Your task to perform on an android device: How big is the universe? Image 0: 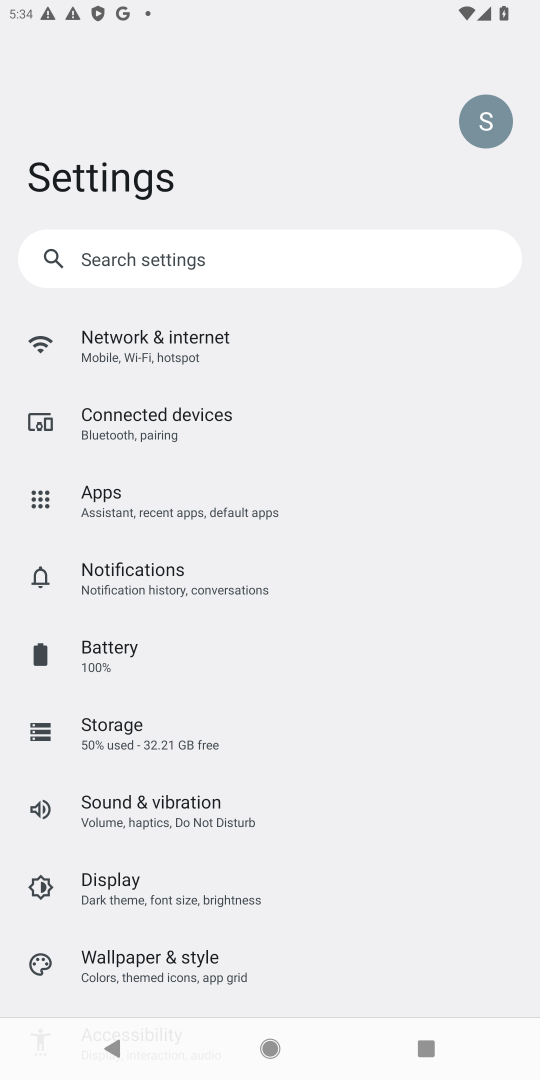
Step 0: press home button
Your task to perform on an android device: How big is the universe? Image 1: 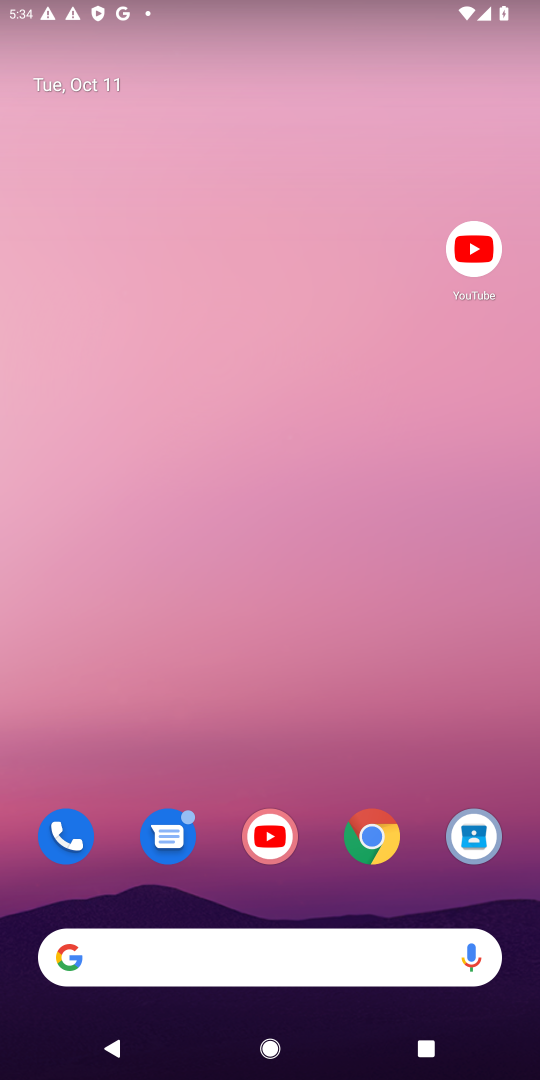
Step 1: click (380, 834)
Your task to perform on an android device: How big is the universe? Image 2: 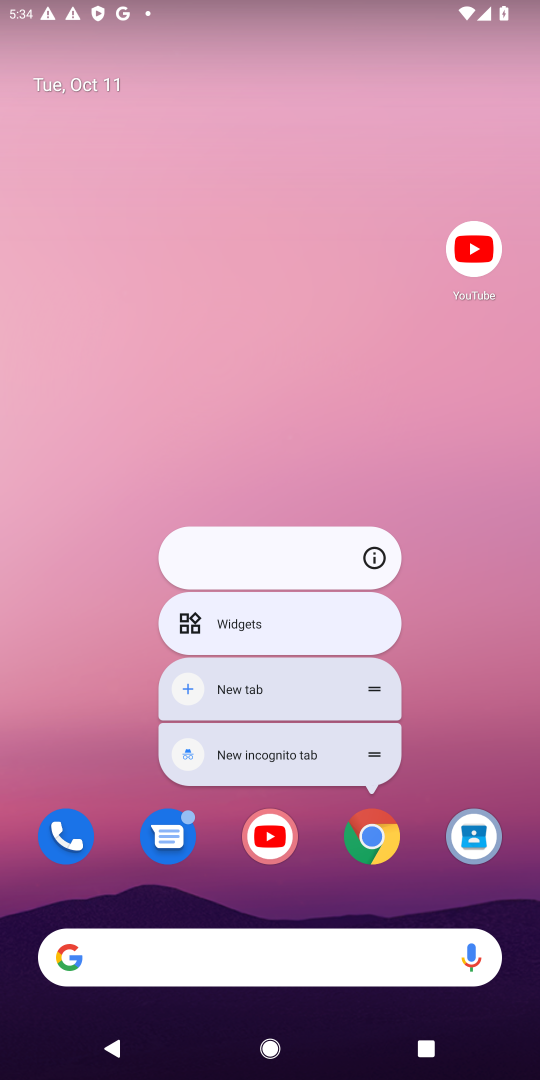
Step 2: click (367, 845)
Your task to perform on an android device: How big is the universe? Image 3: 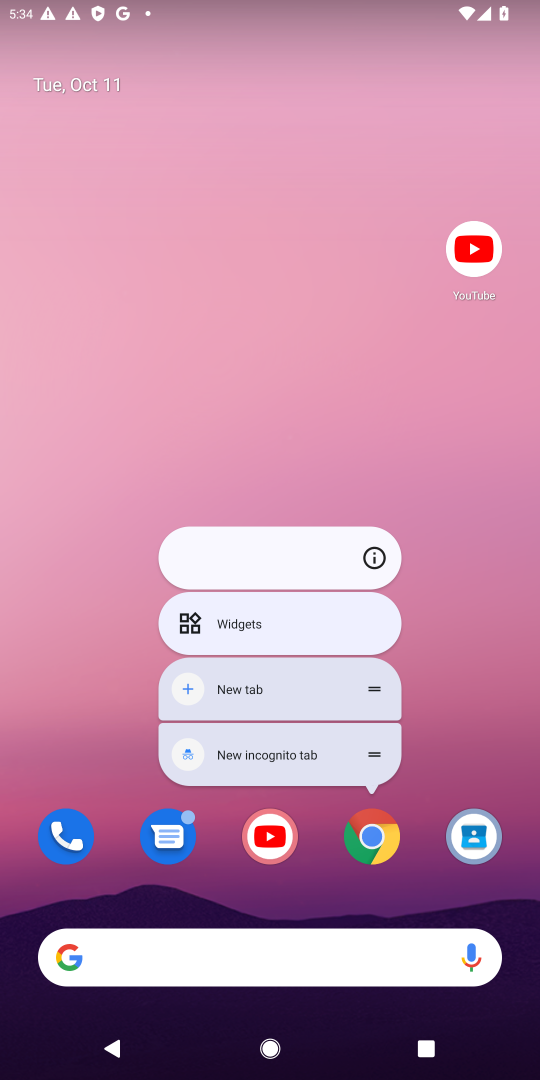
Step 3: click (382, 828)
Your task to perform on an android device: How big is the universe? Image 4: 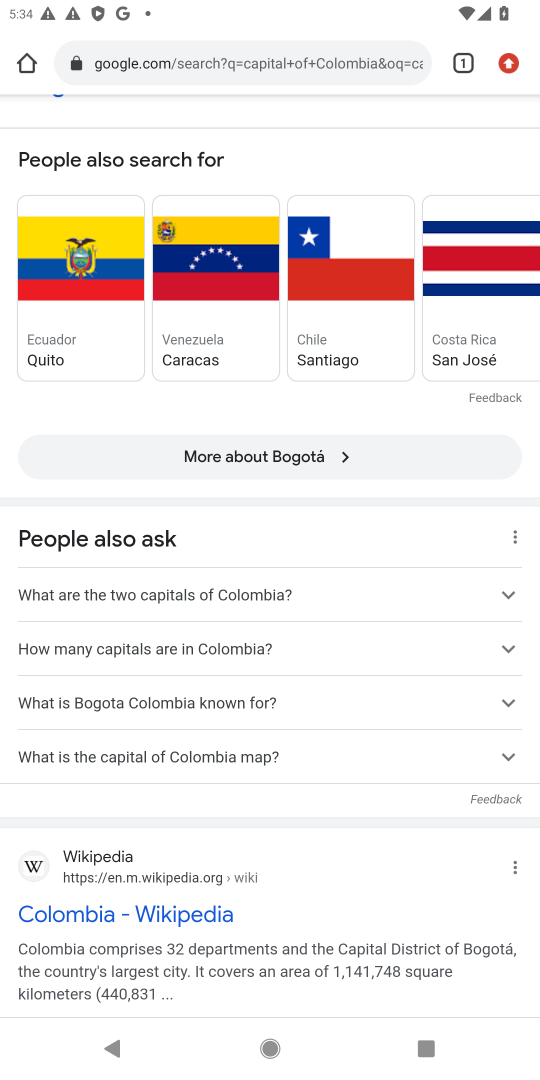
Step 4: click (297, 62)
Your task to perform on an android device: How big is the universe? Image 5: 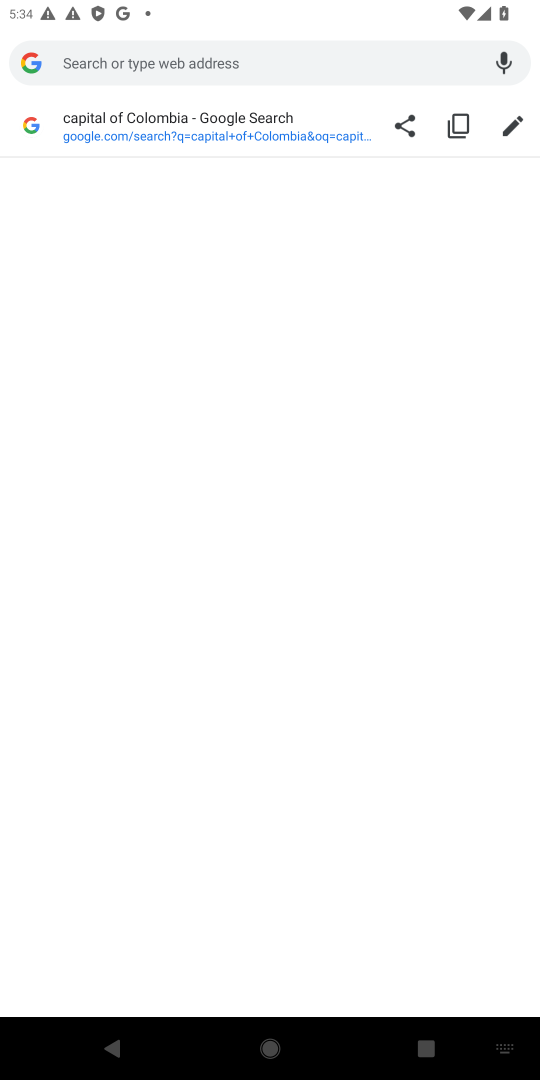
Step 5: type "How big is the universe"
Your task to perform on an android device: How big is the universe? Image 6: 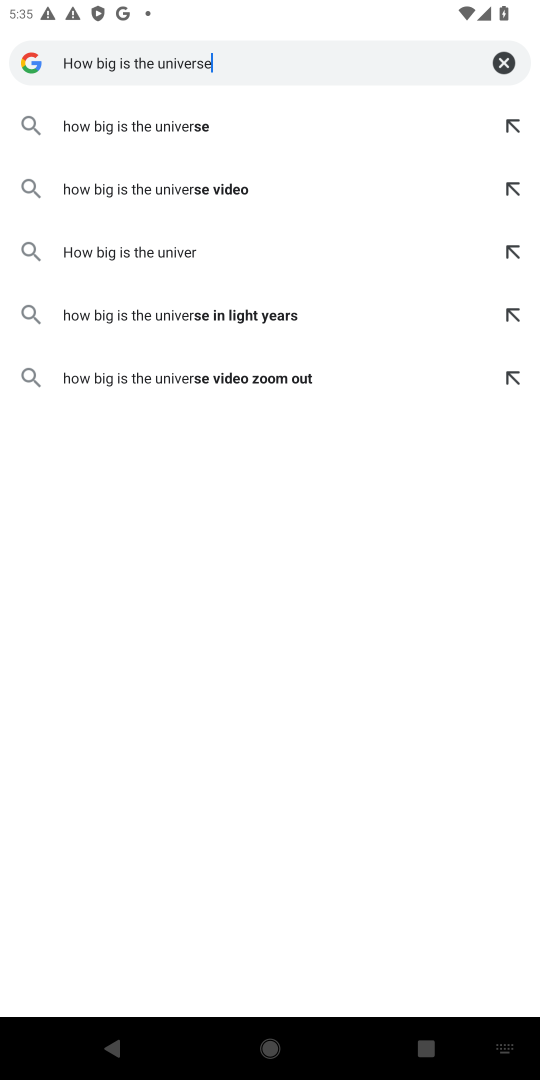
Step 6: press enter
Your task to perform on an android device: How big is the universe? Image 7: 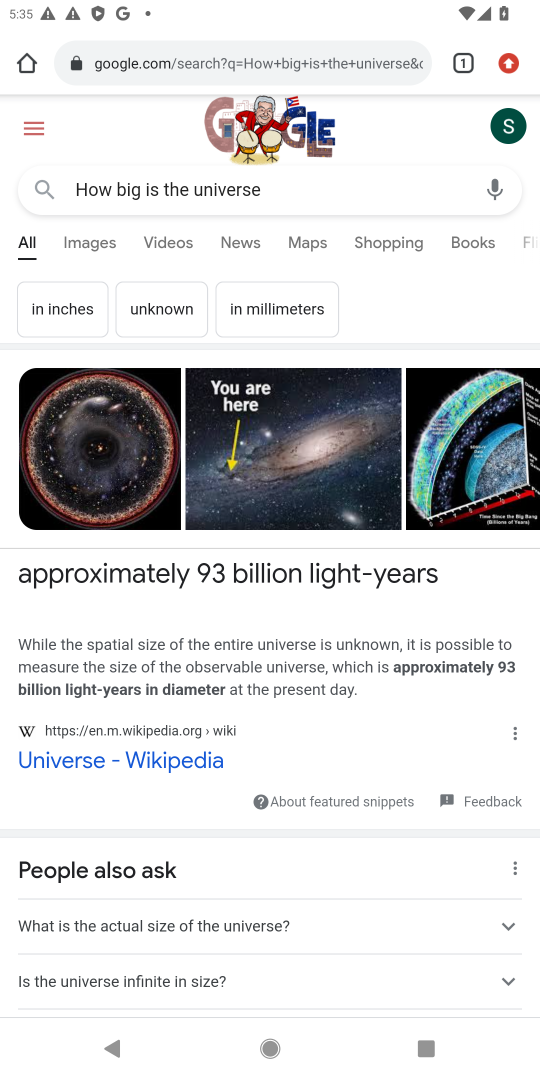
Step 7: click (160, 753)
Your task to perform on an android device: How big is the universe? Image 8: 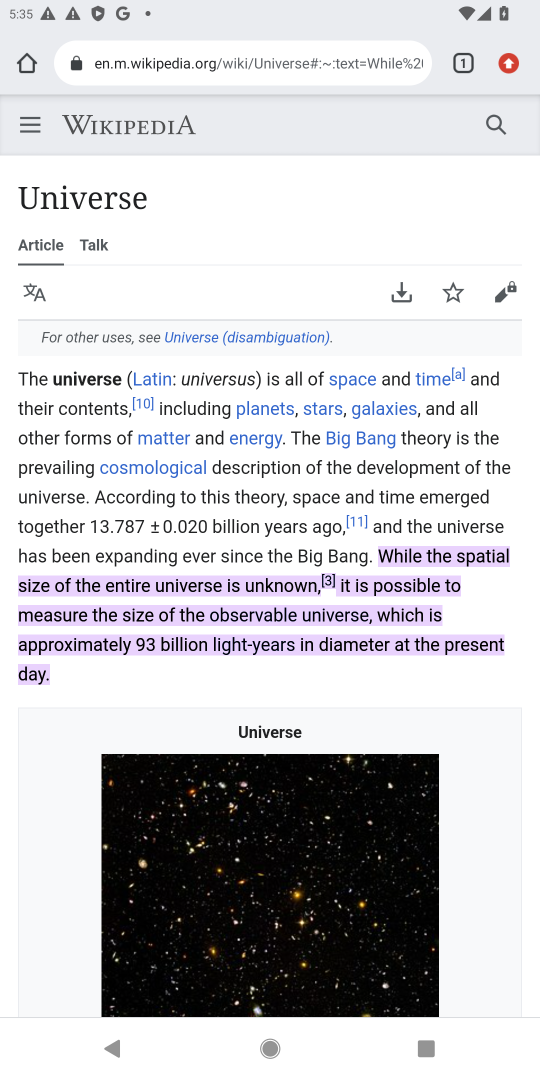
Step 8: task complete